Your task to perform on an android device: see sites visited before in the chrome app Image 0: 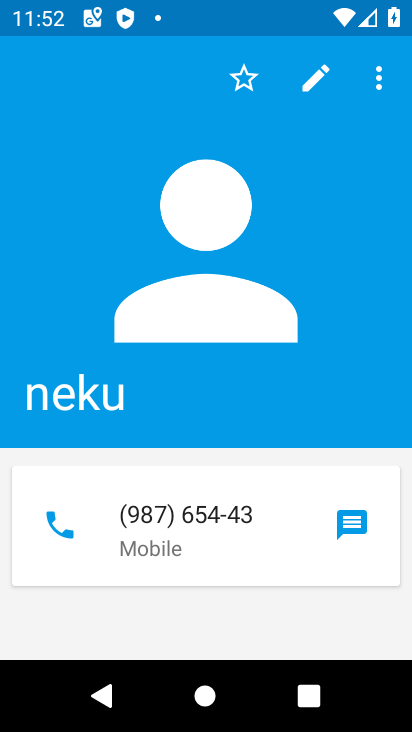
Step 0: press home button
Your task to perform on an android device: see sites visited before in the chrome app Image 1: 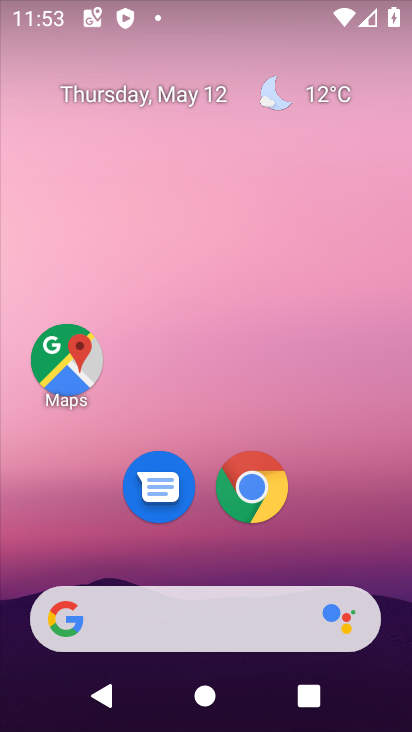
Step 1: click (262, 498)
Your task to perform on an android device: see sites visited before in the chrome app Image 2: 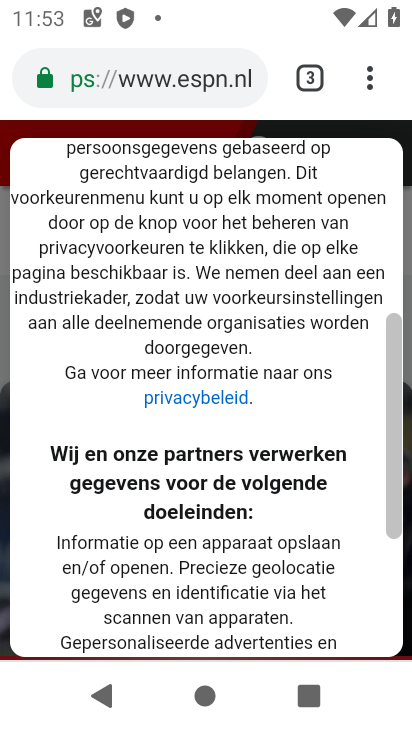
Step 2: task complete